Your task to perform on an android device: Open Android settings Image 0: 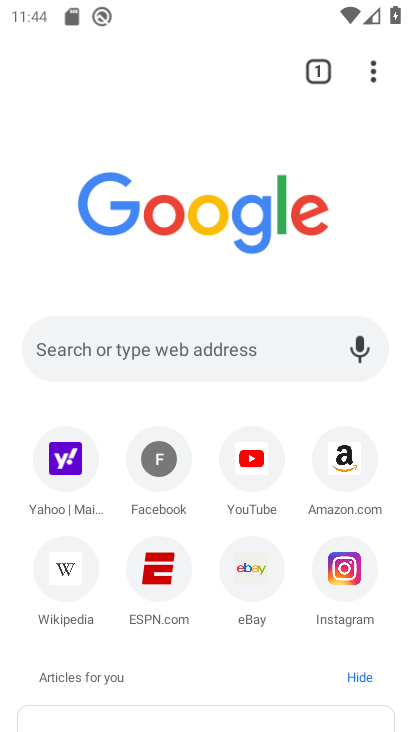
Step 0: press home button
Your task to perform on an android device: Open Android settings Image 1: 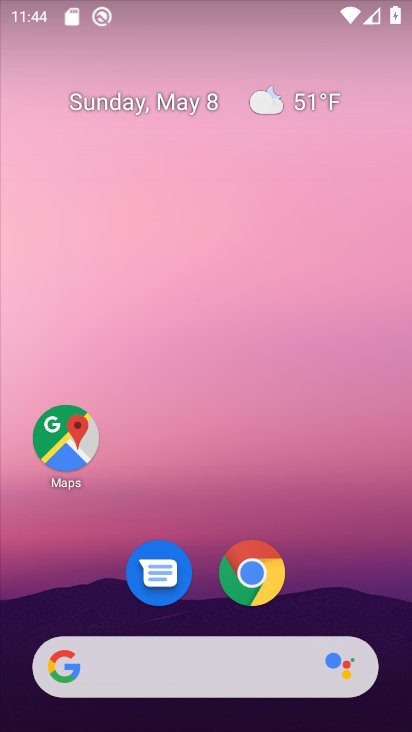
Step 1: drag from (165, 637) to (331, 208)
Your task to perform on an android device: Open Android settings Image 2: 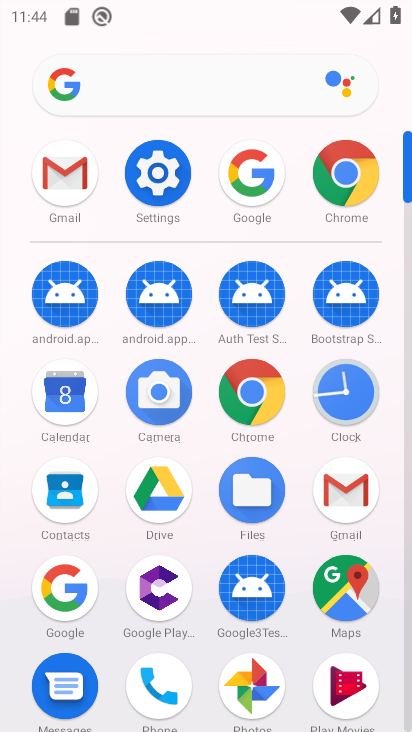
Step 2: click (165, 181)
Your task to perform on an android device: Open Android settings Image 3: 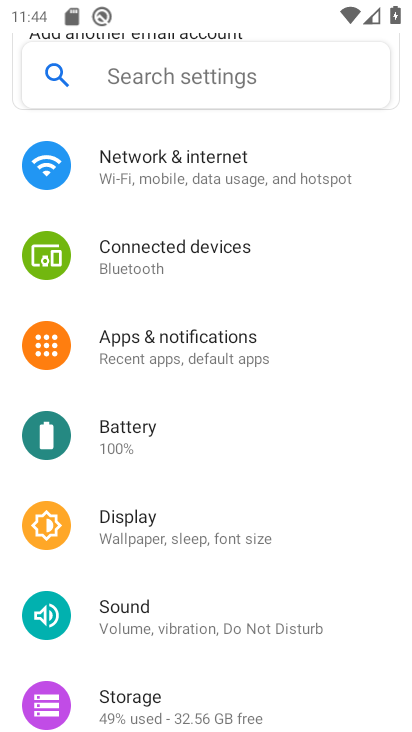
Step 3: task complete